Your task to perform on an android device: turn pop-ups on in chrome Image 0: 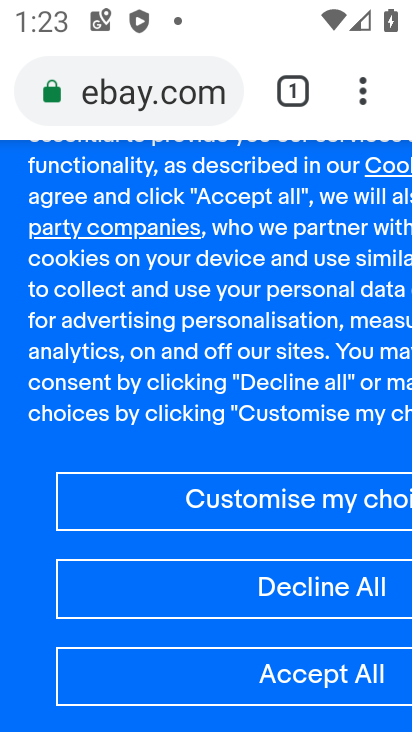
Step 0: click (362, 91)
Your task to perform on an android device: turn pop-ups on in chrome Image 1: 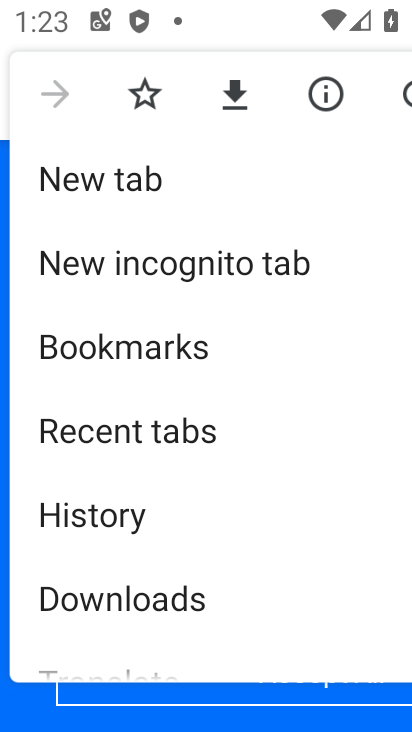
Step 1: drag from (197, 517) to (234, 334)
Your task to perform on an android device: turn pop-ups on in chrome Image 2: 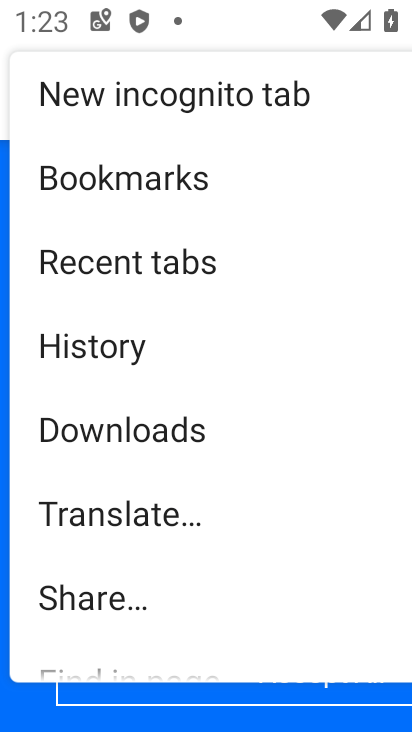
Step 2: drag from (144, 553) to (184, 361)
Your task to perform on an android device: turn pop-ups on in chrome Image 3: 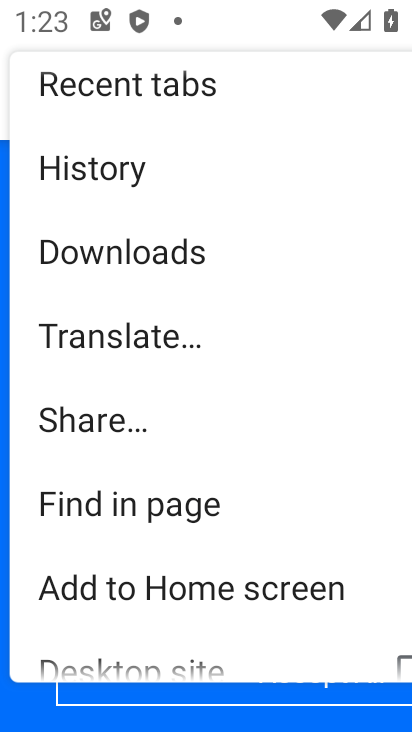
Step 3: drag from (192, 539) to (234, 407)
Your task to perform on an android device: turn pop-ups on in chrome Image 4: 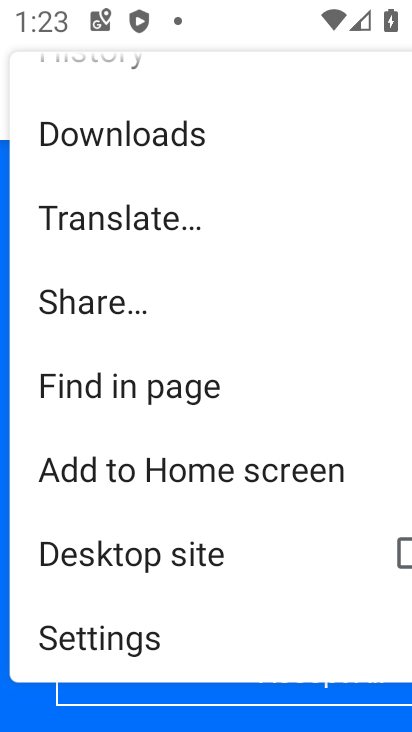
Step 4: drag from (154, 610) to (207, 511)
Your task to perform on an android device: turn pop-ups on in chrome Image 5: 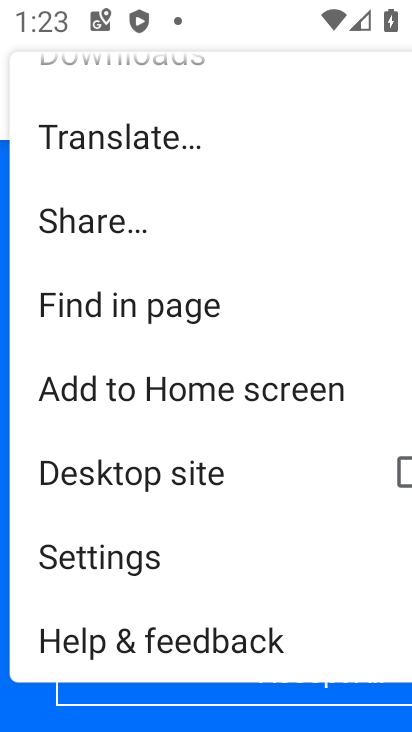
Step 5: click (155, 556)
Your task to perform on an android device: turn pop-ups on in chrome Image 6: 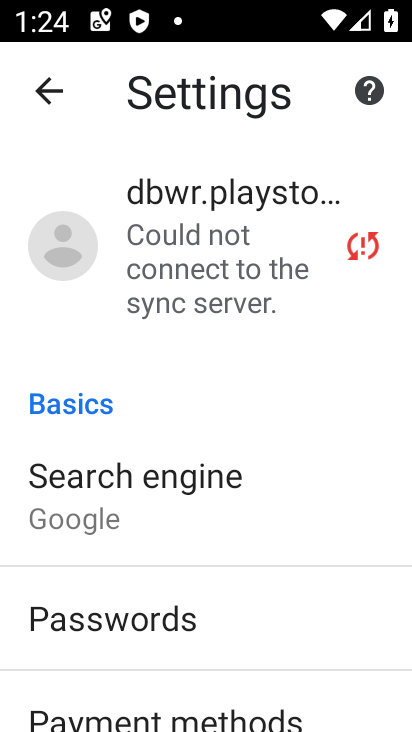
Step 6: drag from (250, 648) to (318, 526)
Your task to perform on an android device: turn pop-ups on in chrome Image 7: 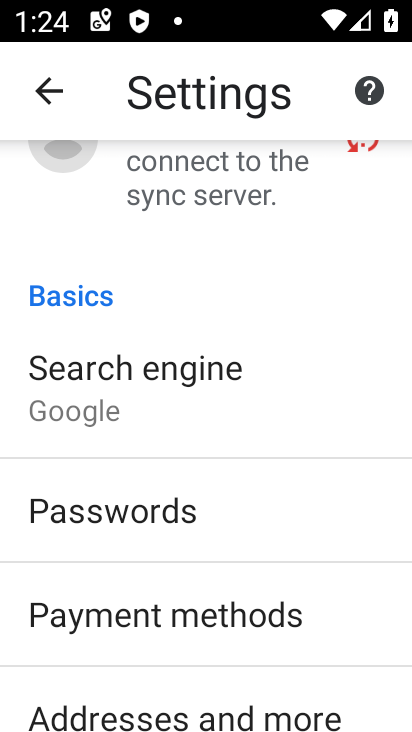
Step 7: drag from (255, 653) to (310, 522)
Your task to perform on an android device: turn pop-ups on in chrome Image 8: 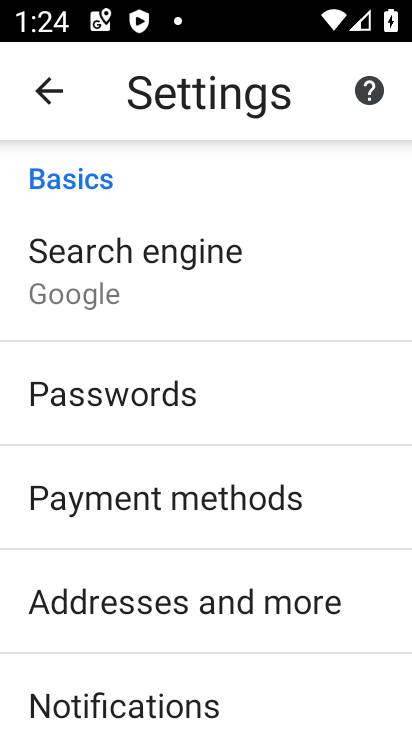
Step 8: drag from (265, 651) to (299, 560)
Your task to perform on an android device: turn pop-ups on in chrome Image 9: 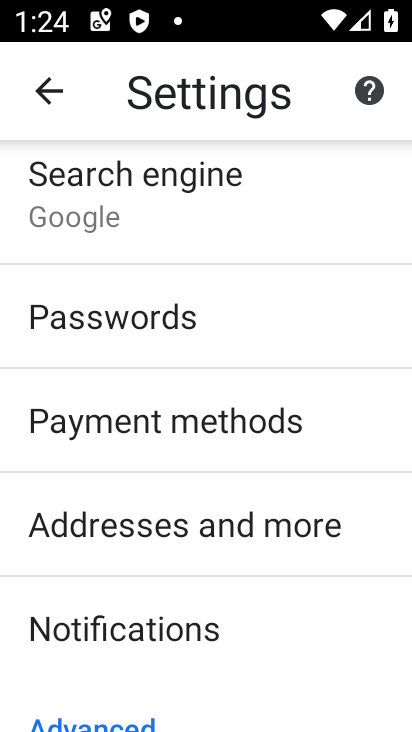
Step 9: drag from (224, 673) to (276, 574)
Your task to perform on an android device: turn pop-ups on in chrome Image 10: 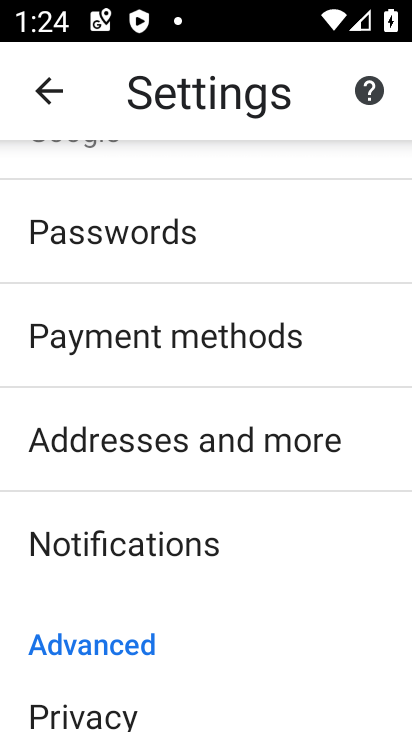
Step 10: drag from (233, 678) to (278, 541)
Your task to perform on an android device: turn pop-ups on in chrome Image 11: 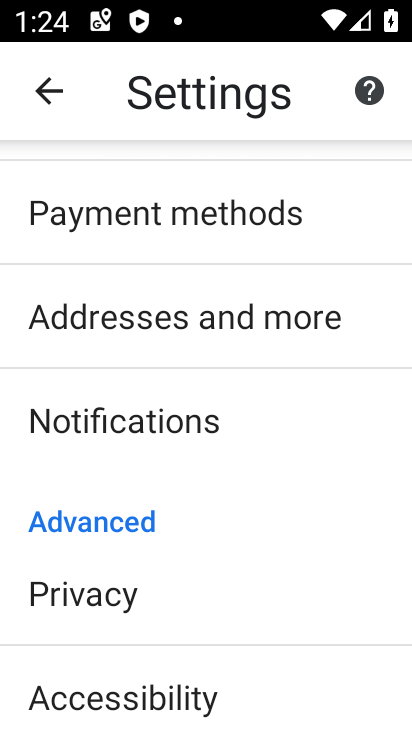
Step 11: drag from (271, 671) to (291, 584)
Your task to perform on an android device: turn pop-ups on in chrome Image 12: 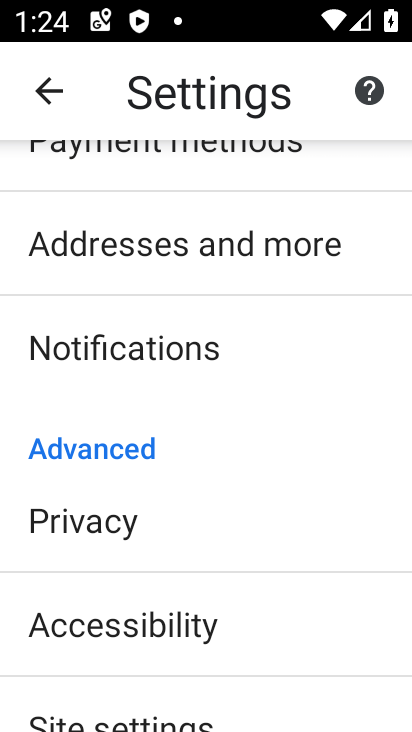
Step 12: drag from (256, 695) to (295, 607)
Your task to perform on an android device: turn pop-ups on in chrome Image 13: 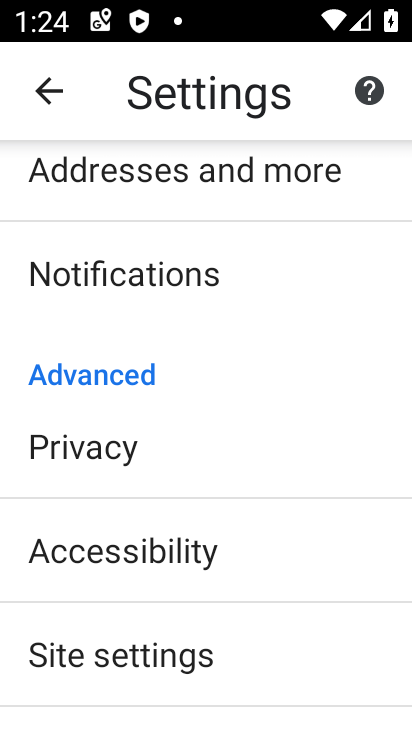
Step 13: click (159, 659)
Your task to perform on an android device: turn pop-ups on in chrome Image 14: 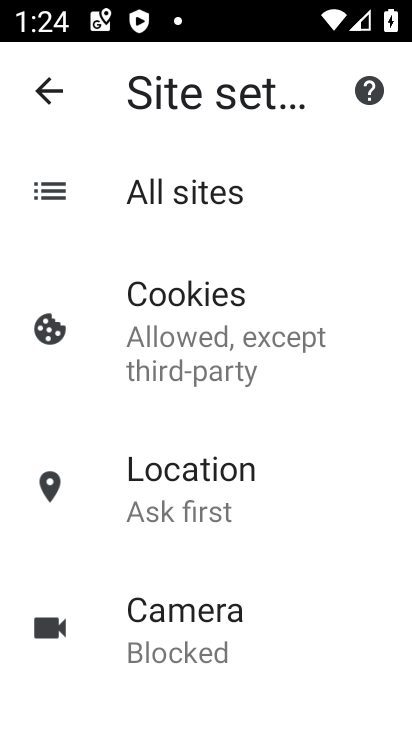
Step 14: drag from (316, 686) to (332, 559)
Your task to perform on an android device: turn pop-ups on in chrome Image 15: 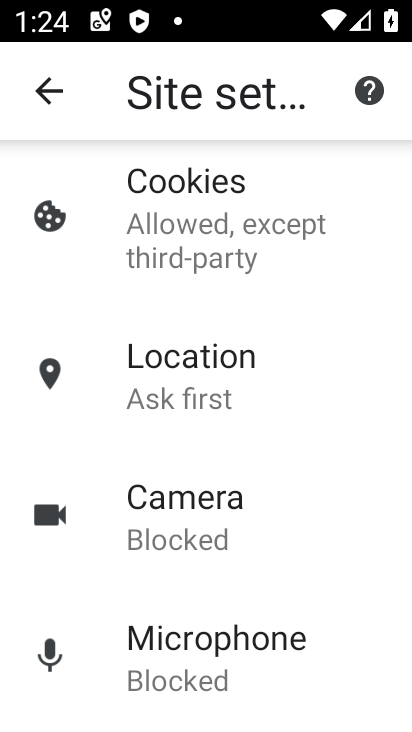
Step 15: drag from (328, 669) to (349, 554)
Your task to perform on an android device: turn pop-ups on in chrome Image 16: 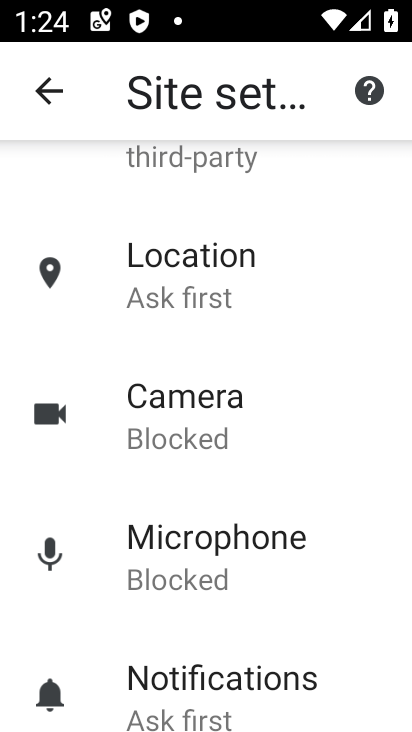
Step 16: drag from (279, 642) to (335, 532)
Your task to perform on an android device: turn pop-ups on in chrome Image 17: 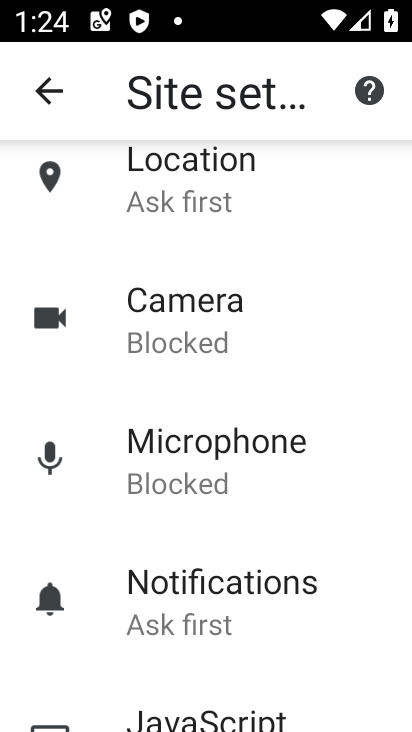
Step 17: drag from (271, 636) to (304, 537)
Your task to perform on an android device: turn pop-ups on in chrome Image 18: 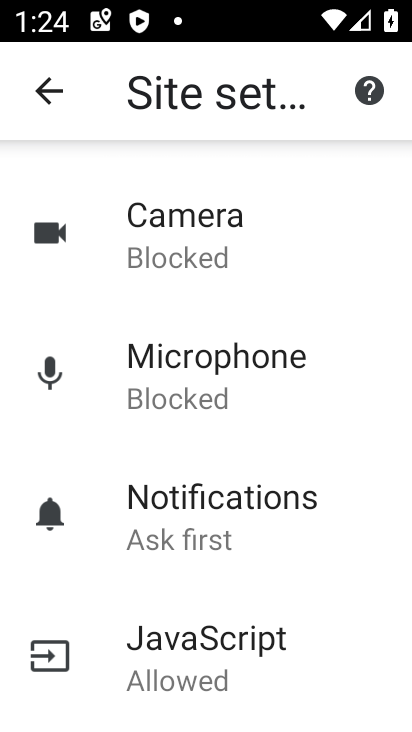
Step 18: drag from (273, 694) to (333, 557)
Your task to perform on an android device: turn pop-ups on in chrome Image 19: 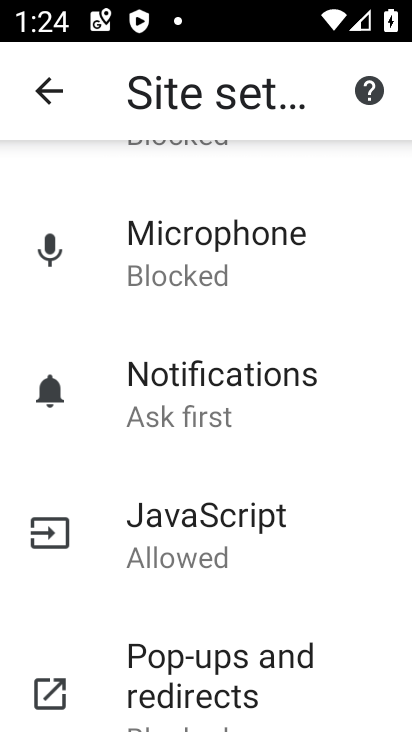
Step 19: drag from (251, 633) to (281, 534)
Your task to perform on an android device: turn pop-ups on in chrome Image 20: 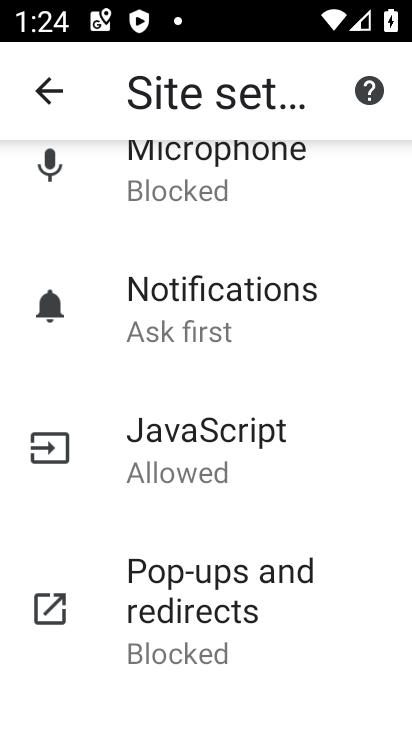
Step 20: click (270, 601)
Your task to perform on an android device: turn pop-ups on in chrome Image 21: 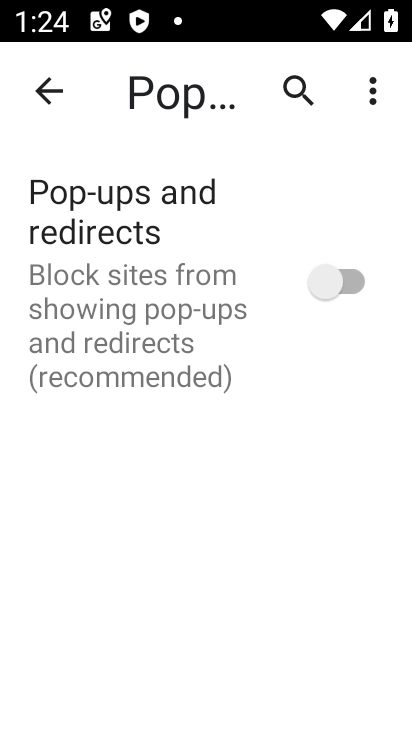
Step 21: click (350, 287)
Your task to perform on an android device: turn pop-ups on in chrome Image 22: 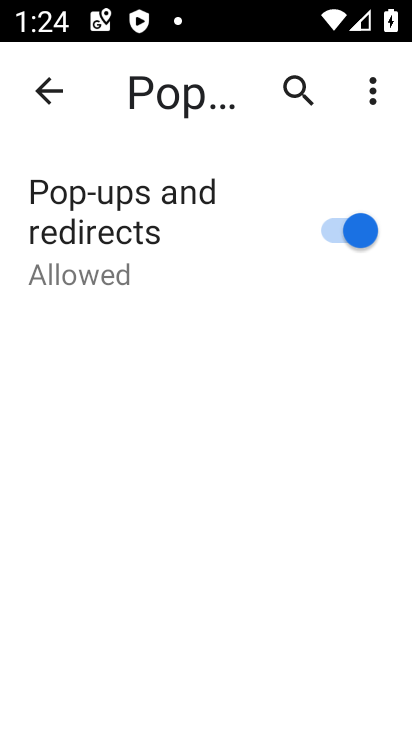
Step 22: task complete